Your task to perform on an android device: remove spam from my inbox in the gmail app Image 0: 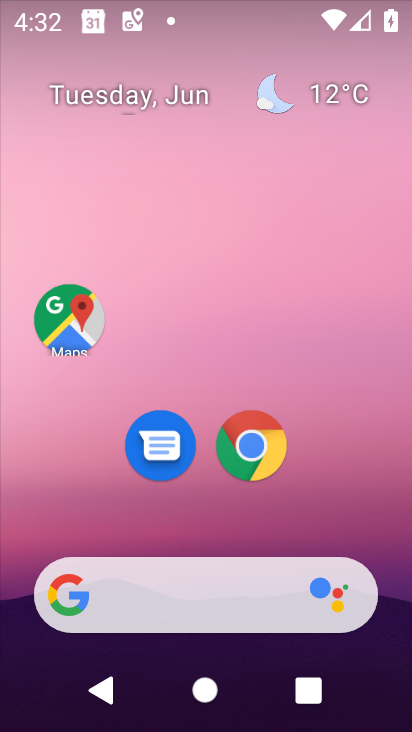
Step 0: drag from (328, 509) to (280, 0)
Your task to perform on an android device: remove spam from my inbox in the gmail app Image 1: 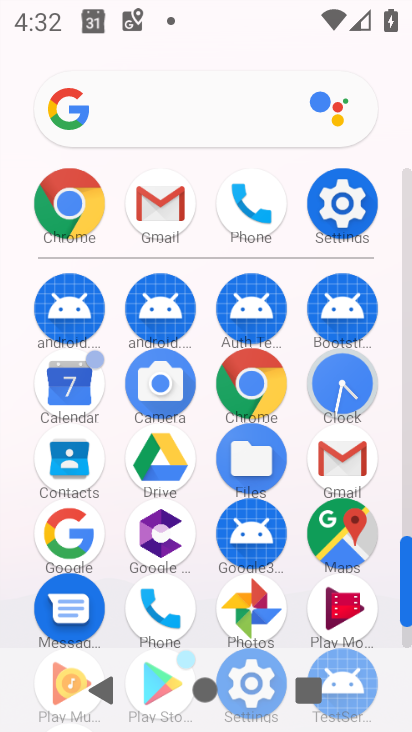
Step 1: click (164, 214)
Your task to perform on an android device: remove spam from my inbox in the gmail app Image 2: 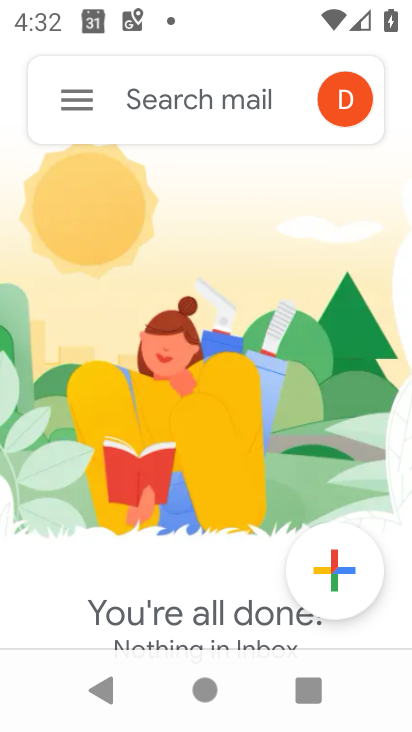
Step 2: click (62, 95)
Your task to perform on an android device: remove spam from my inbox in the gmail app Image 3: 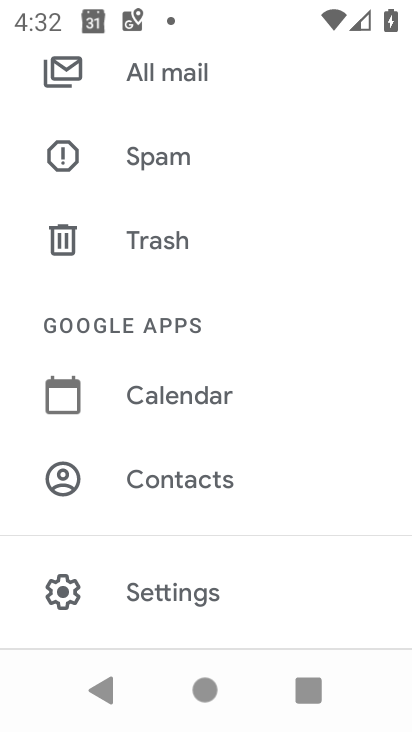
Step 3: click (162, 595)
Your task to perform on an android device: remove spam from my inbox in the gmail app Image 4: 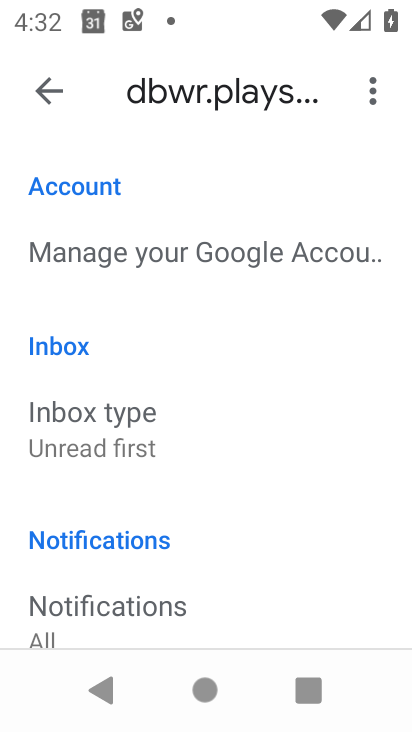
Step 4: click (53, 85)
Your task to perform on an android device: remove spam from my inbox in the gmail app Image 5: 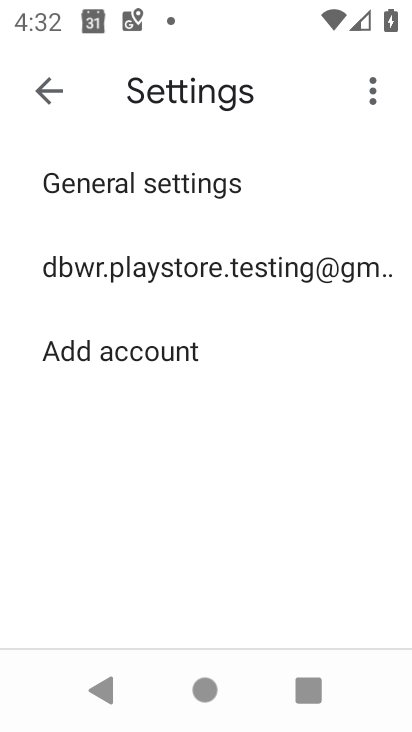
Step 5: click (61, 98)
Your task to perform on an android device: remove spam from my inbox in the gmail app Image 6: 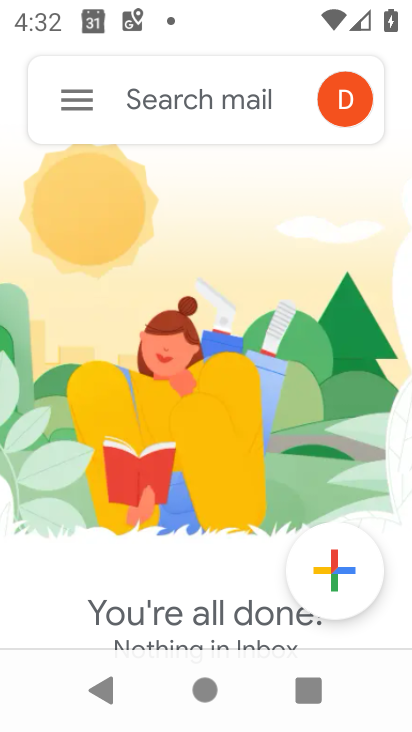
Step 6: click (66, 110)
Your task to perform on an android device: remove spam from my inbox in the gmail app Image 7: 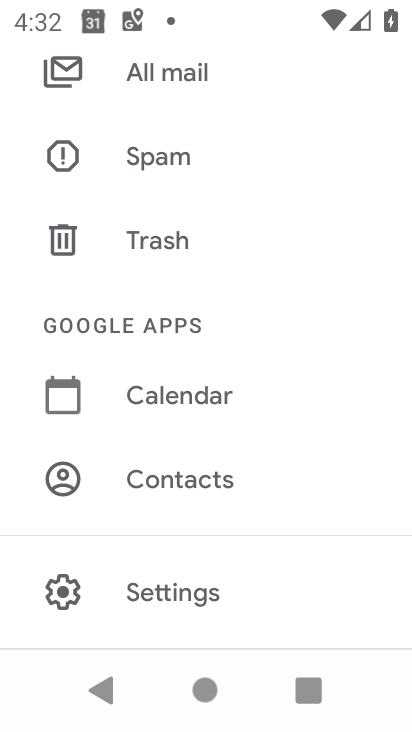
Step 7: click (150, 162)
Your task to perform on an android device: remove spam from my inbox in the gmail app Image 8: 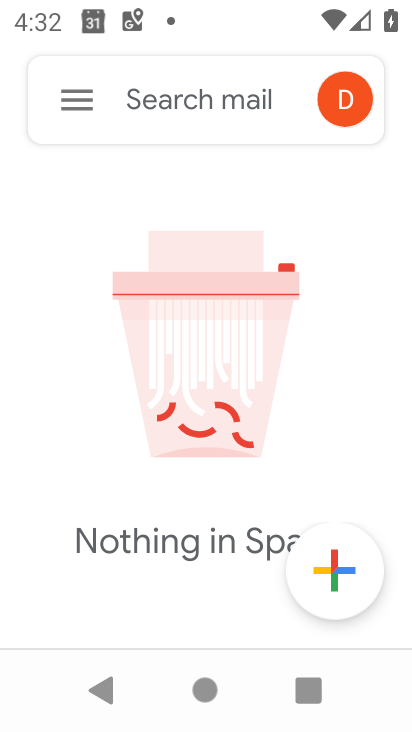
Step 8: click (94, 98)
Your task to perform on an android device: remove spam from my inbox in the gmail app Image 9: 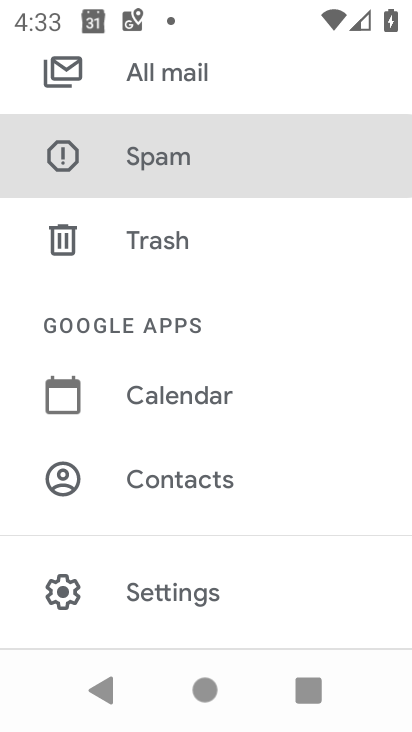
Step 9: click (182, 167)
Your task to perform on an android device: remove spam from my inbox in the gmail app Image 10: 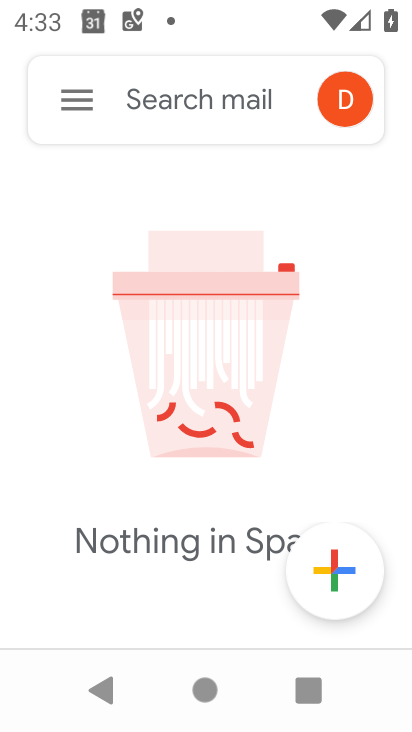
Step 10: task complete